Your task to perform on an android device: Show me popular videos on Youtube Image 0: 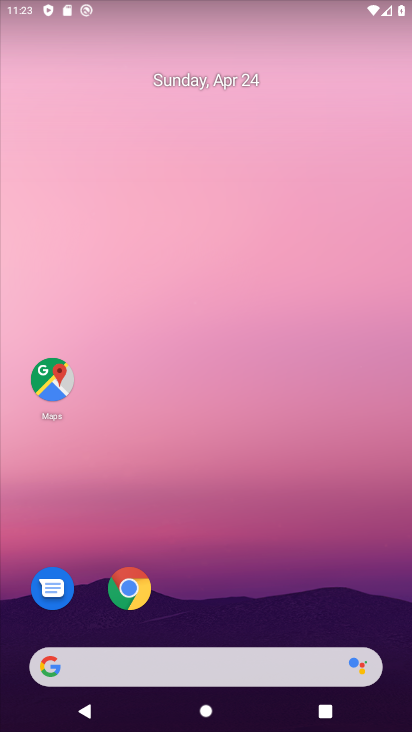
Step 0: drag from (222, 555) to (387, 18)
Your task to perform on an android device: Show me popular videos on Youtube Image 1: 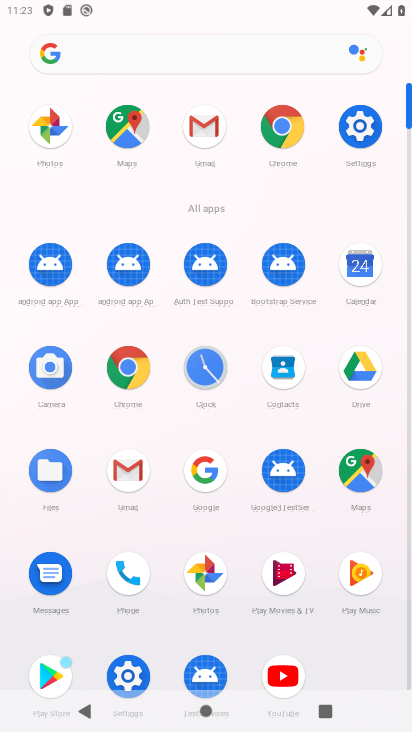
Step 1: drag from (233, 594) to (285, 387)
Your task to perform on an android device: Show me popular videos on Youtube Image 2: 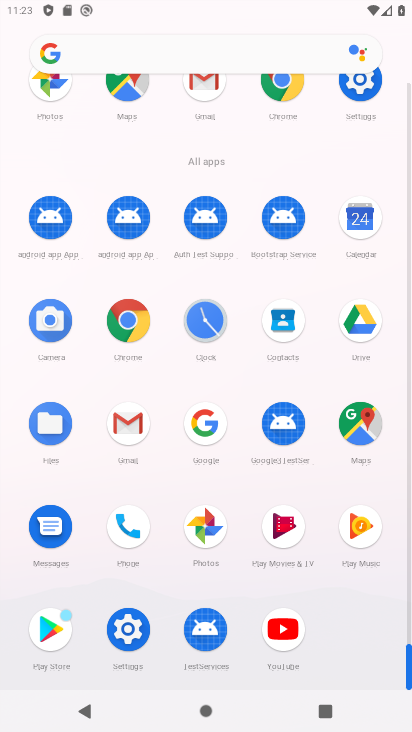
Step 2: click (291, 627)
Your task to perform on an android device: Show me popular videos on Youtube Image 3: 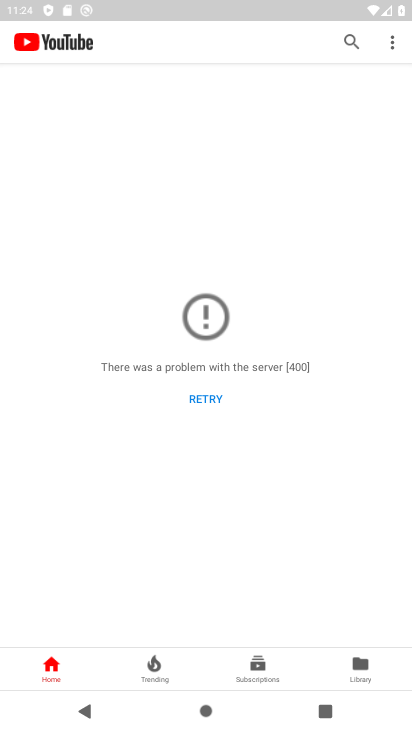
Step 3: task complete